Your task to perform on an android device: change the clock style Image 0: 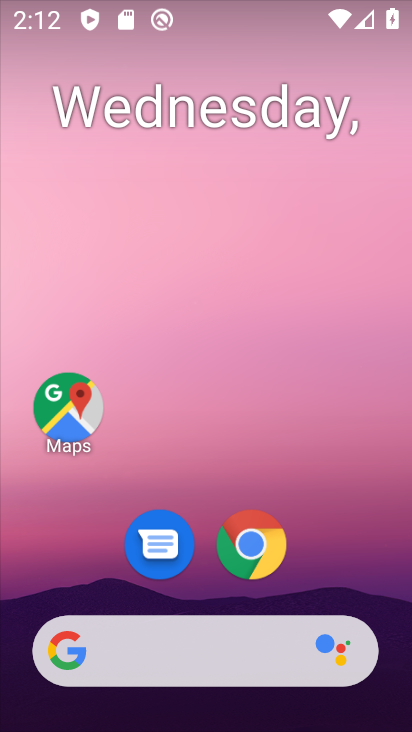
Step 0: drag from (382, 590) to (347, 165)
Your task to perform on an android device: change the clock style Image 1: 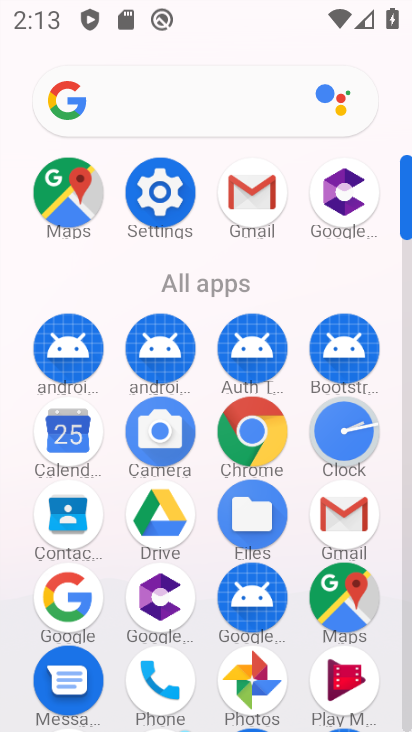
Step 1: click (366, 435)
Your task to perform on an android device: change the clock style Image 2: 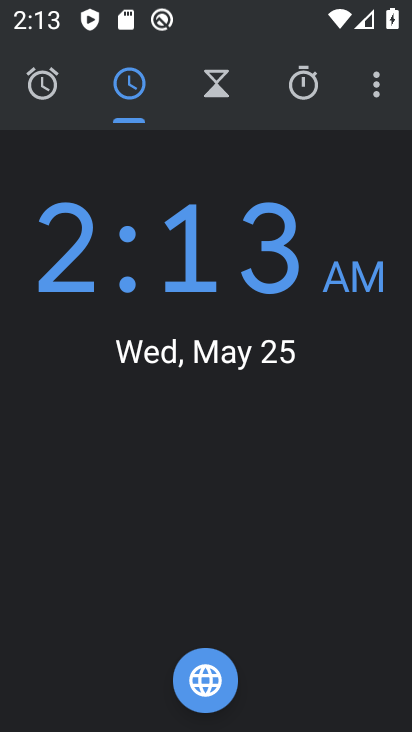
Step 2: click (369, 84)
Your task to perform on an android device: change the clock style Image 3: 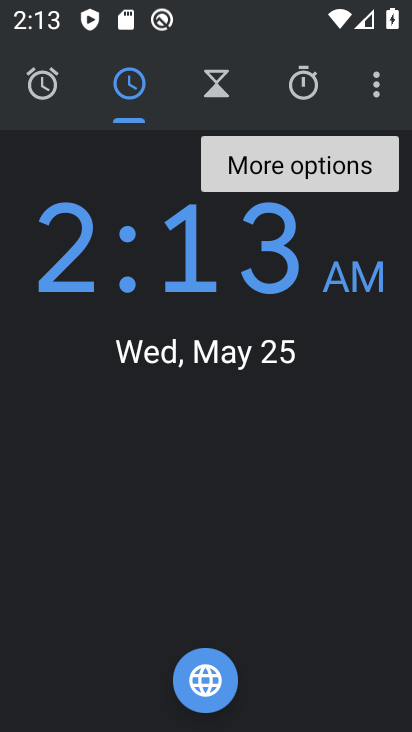
Step 3: click (370, 98)
Your task to perform on an android device: change the clock style Image 4: 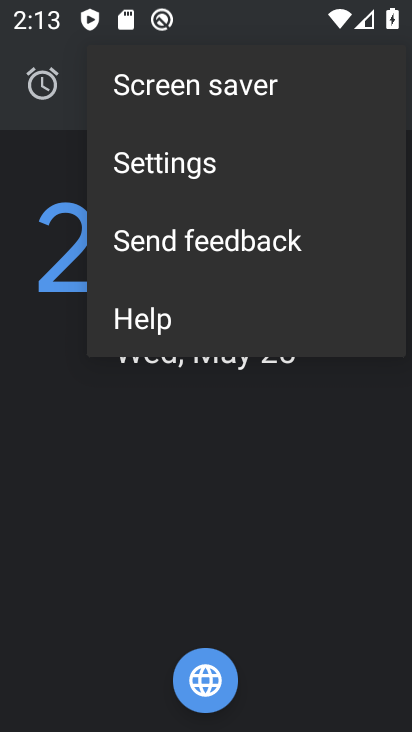
Step 4: click (248, 162)
Your task to perform on an android device: change the clock style Image 5: 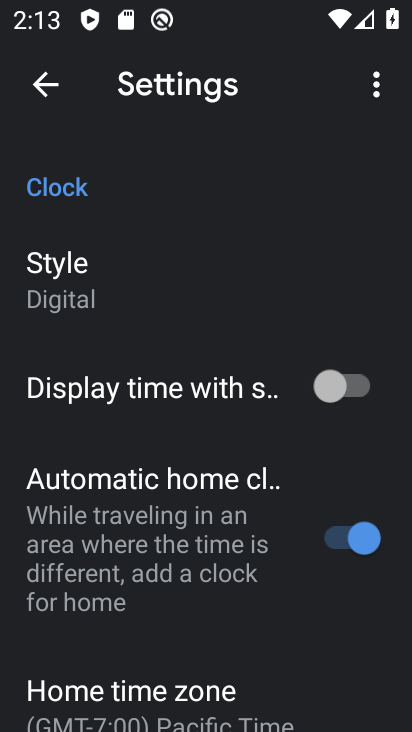
Step 5: click (45, 275)
Your task to perform on an android device: change the clock style Image 6: 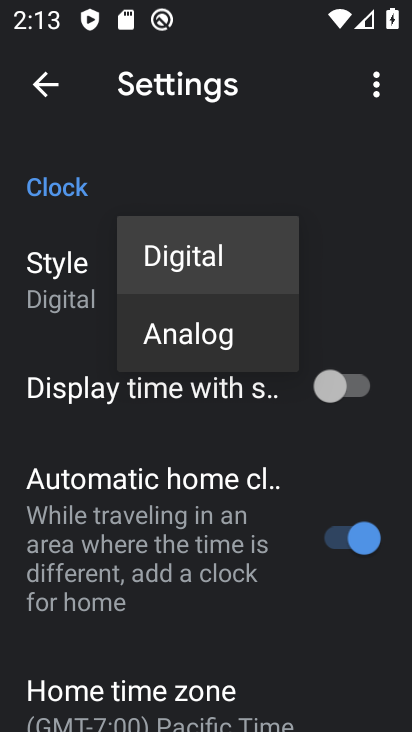
Step 6: click (152, 335)
Your task to perform on an android device: change the clock style Image 7: 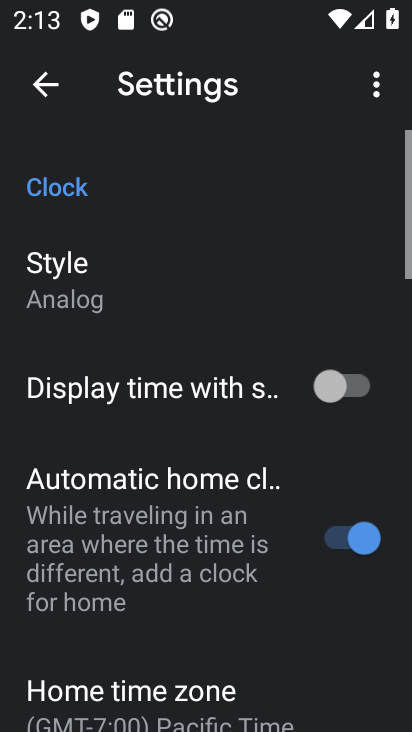
Step 7: task complete